Your task to perform on an android device: Search for Mexican restaurants on Maps Image 0: 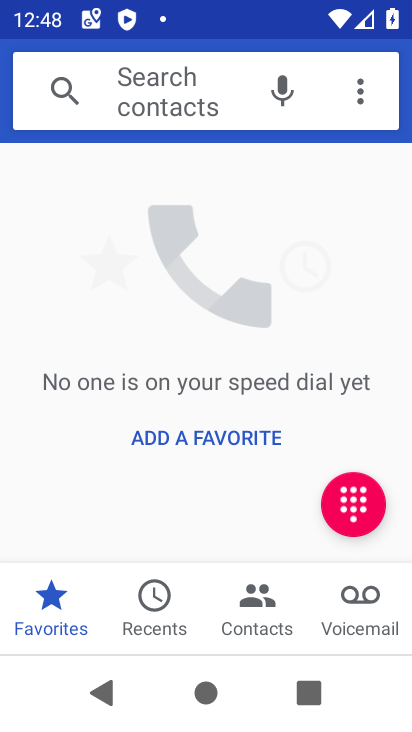
Step 0: press home button
Your task to perform on an android device: Search for Mexican restaurants on Maps Image 1: 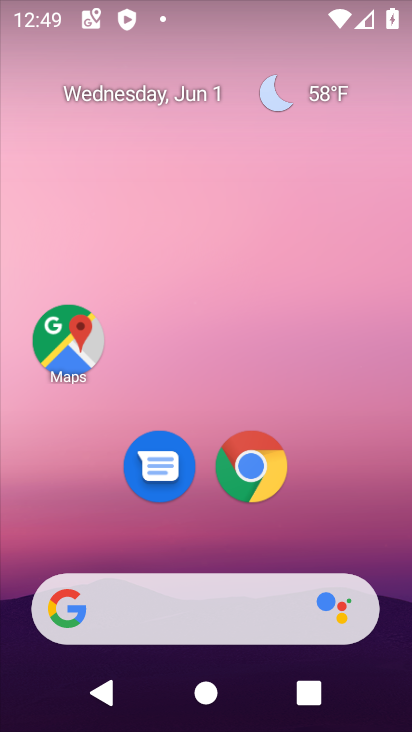
Step 1: click (69, 348)
Your task to perform on an android device: Search for Mexican restaurants on Maps Image 2: 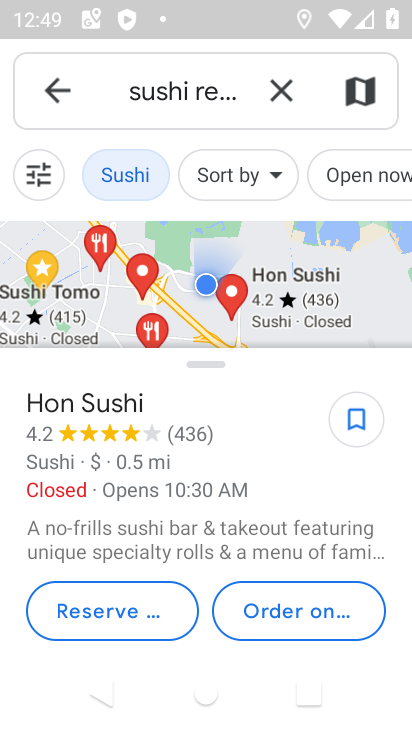
Step 2: click (283, 87)
Your task to perform on an android device: Search for Mexican restaurants on Maps Image 3: 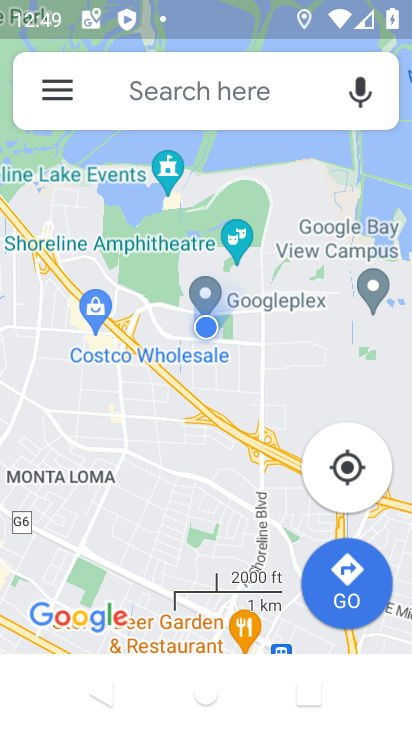
Step 3: click (143, 87)
Your task to perform on an android device: Search for Mexican restaurants on Maps Image 4: 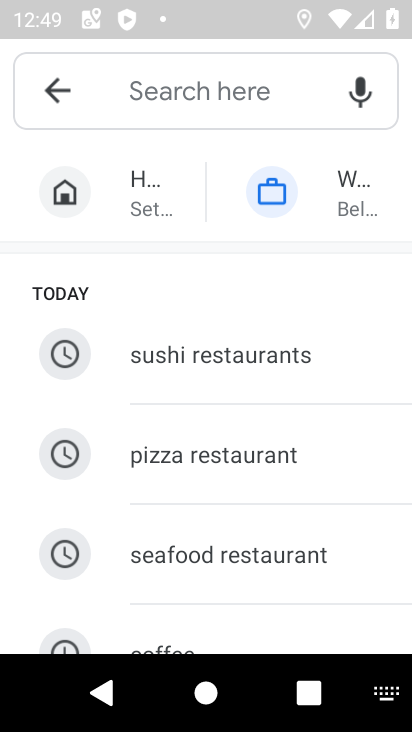
Step 4: type "Mexican restaurants"
Your task to perform on an android device: Search for Mexican restaurants on Maps Image 5: 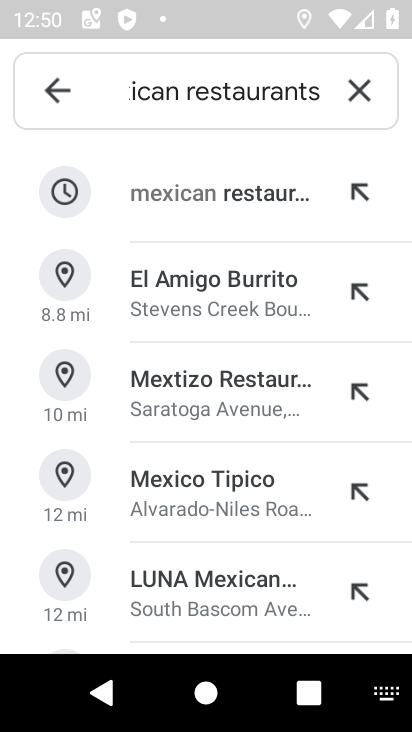
Step 5: click (249, 197)
Your task to perform on an android device: Search for Mexican restaurants on Maps Image 6: 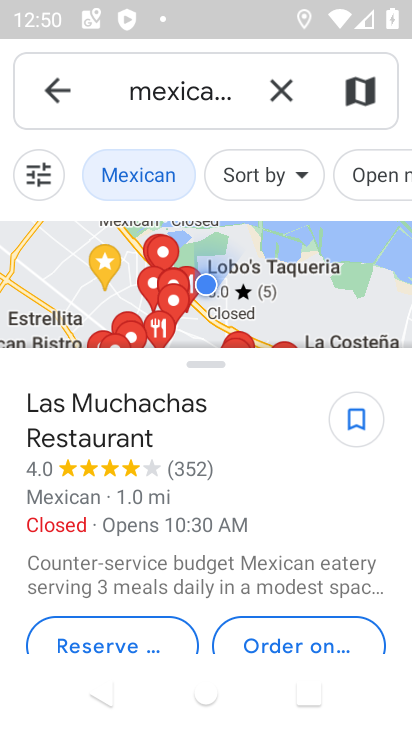
Step 6: task complete